Your task to perform on an android device: Turn off the flashlight Image 0: 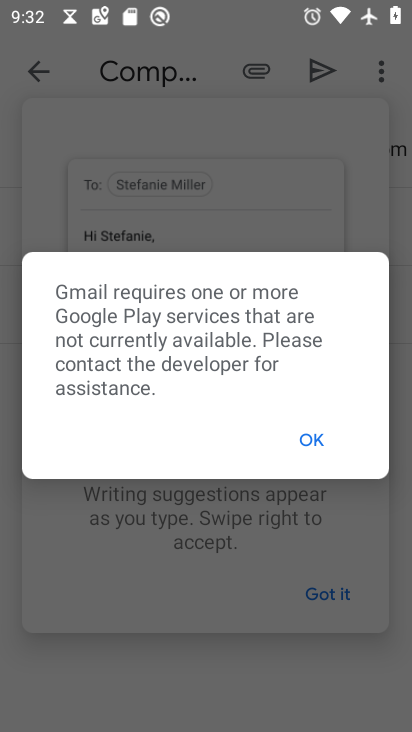
Step 0: press home button
Your task to perform on an android device: Turn off the flashlight Image 1: 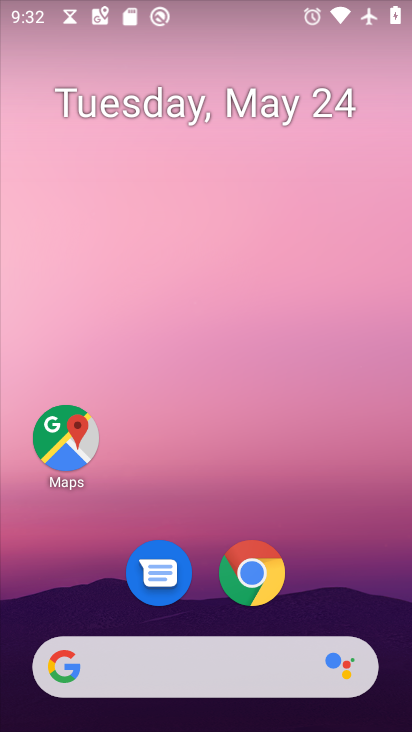
Step 1: drag from (359, 543) to (323, 76)
Your task to perform on an android device: Turn off the flashlight Image 2: 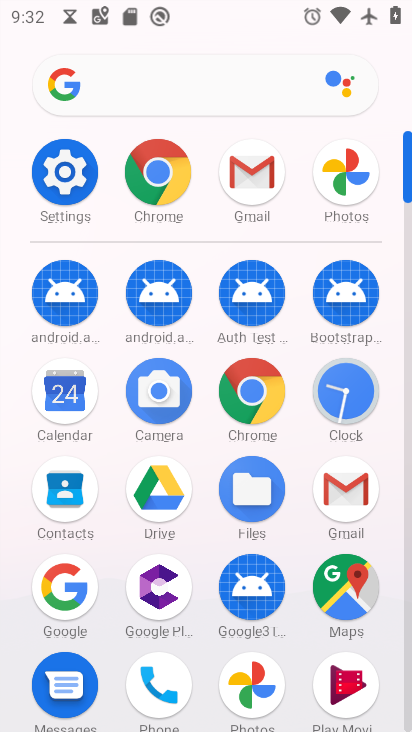
Step 2: click (68, 176)
Your task to perform on an android device: Turn off the flashlight Image 3: 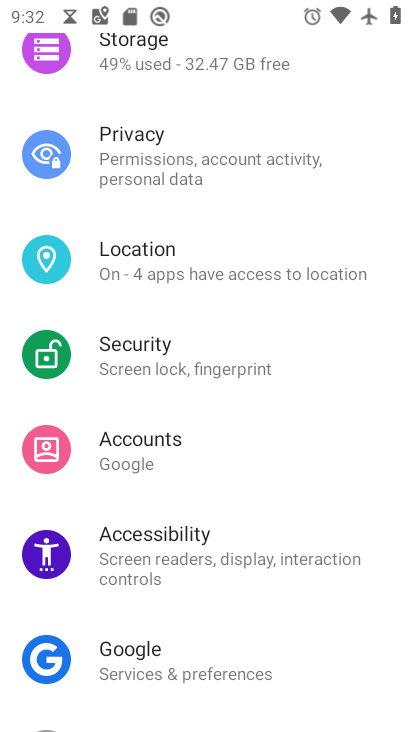
Step 3: task complete